Your task to perform on an android device: turn pop-ups on in chrome Image 0: 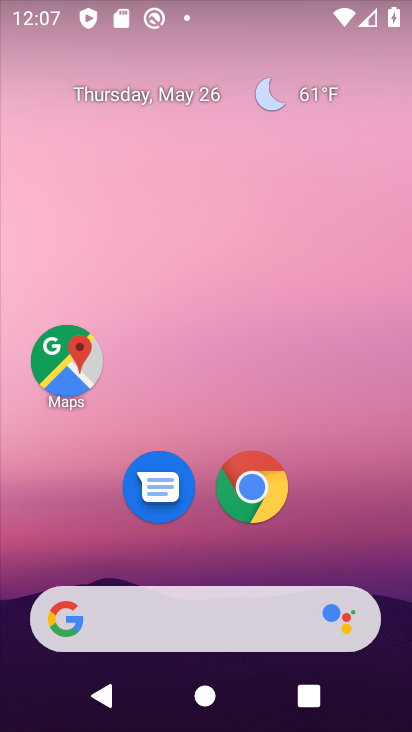
Step 0: drag from (263, 699) to (304, 32)
Your task to perform on an android device: turn pop-ups on in chrome Image 1: 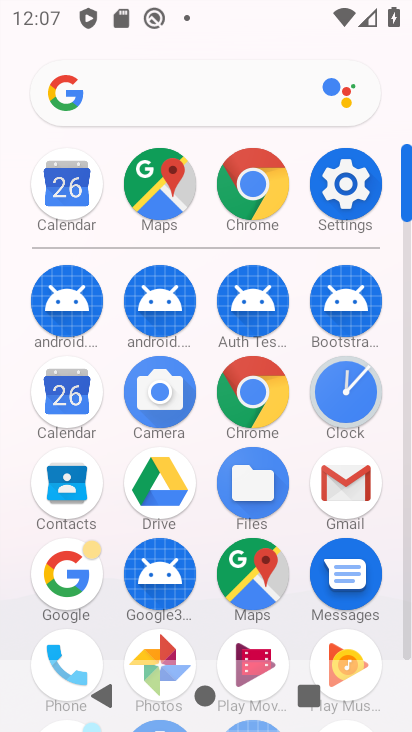
Step 1: click (261, 204)
Your task to perform on an android device: turn pop-ups on in chrome Image 2: 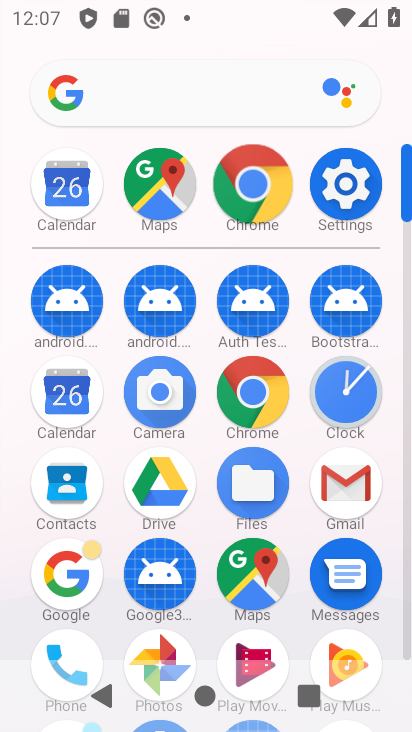
Step 2: click (258, 189)
Your task to perform on an android device: turn pop-ups on in chrome Image 3: 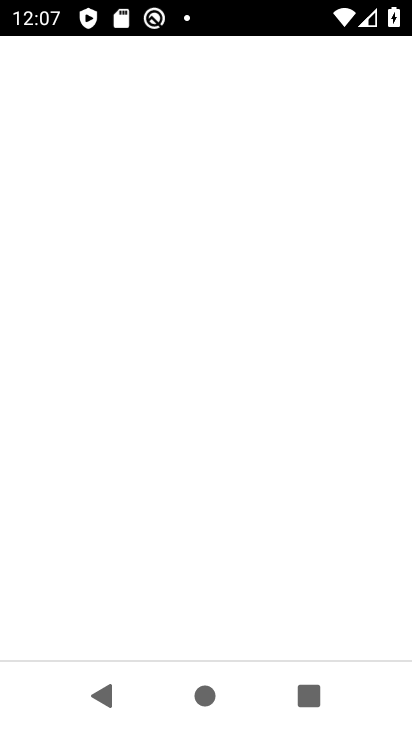
Step 3: click (258, 189)
Your task to perform on an android device: turn pop-ups on in chrome Image 4: 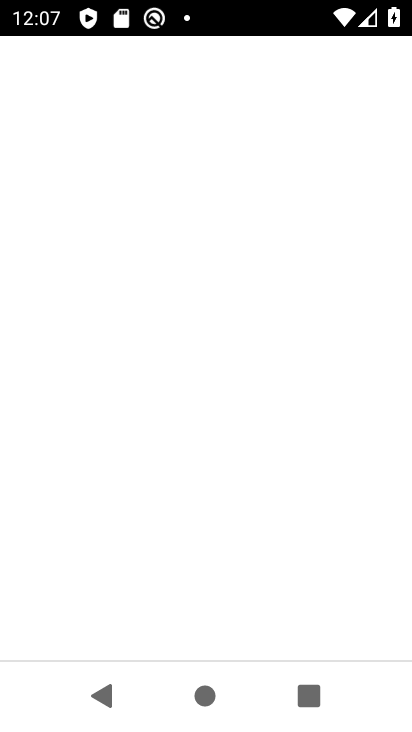
Step 4: click (258, 189)
Your task to perform on an android device: turn pop-ups on in chrome Image 5: 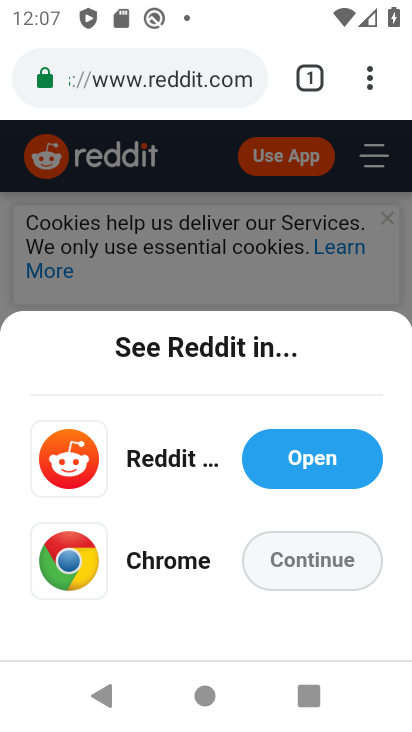
Step 5: press back button
Your task to perform on an android device: turn pop-ups on in chrome Image 6: 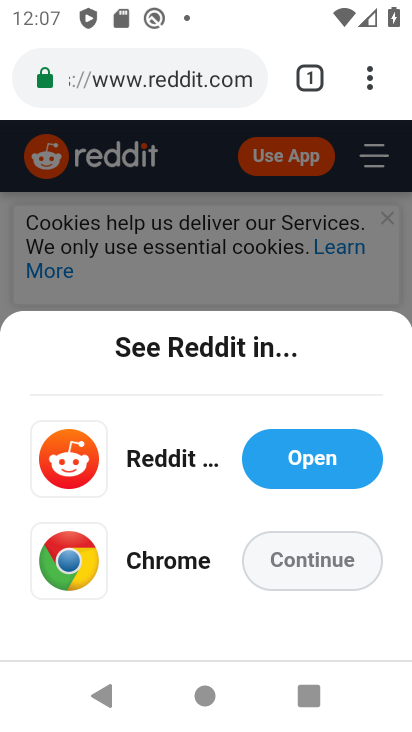
Step 6: press back button
Your task to perform on an android device: turn pop-ups on in chrome Image 7: 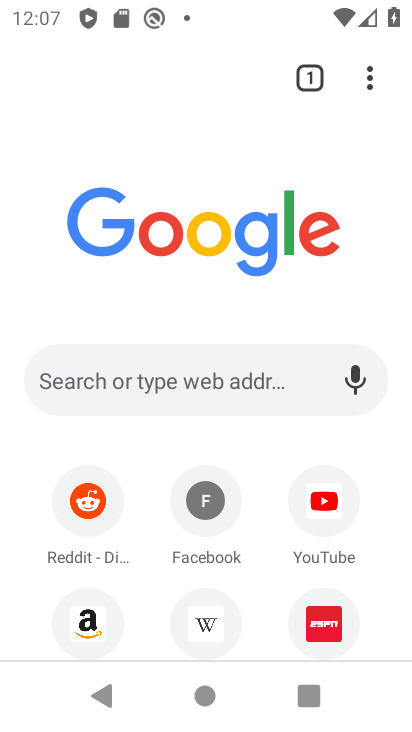
Step 7: press back button
Your task to perform on an android device: turn pop-ups on in chrome Image 8: 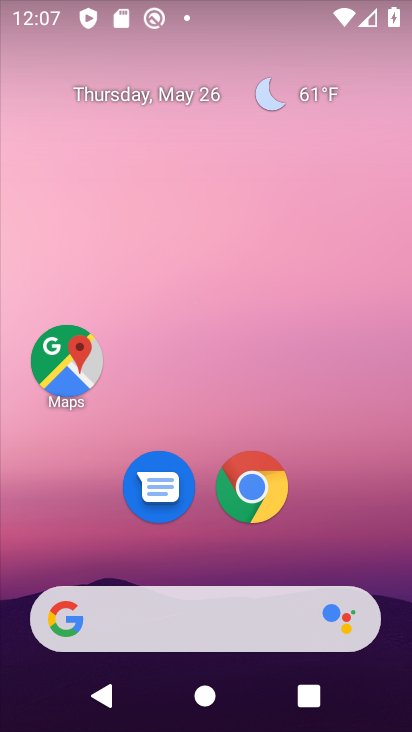
Step 8: press back button
Your task to perform on an android device: turn pop-ups on in chrome Image 9: 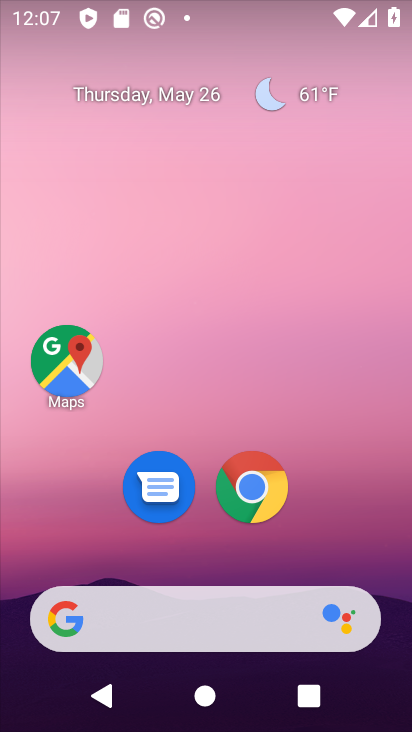
Step 9: drag from (294, 560) to (303, 37)
Your task to perform on an android device: turn pop-ups on in chrome Image 10: 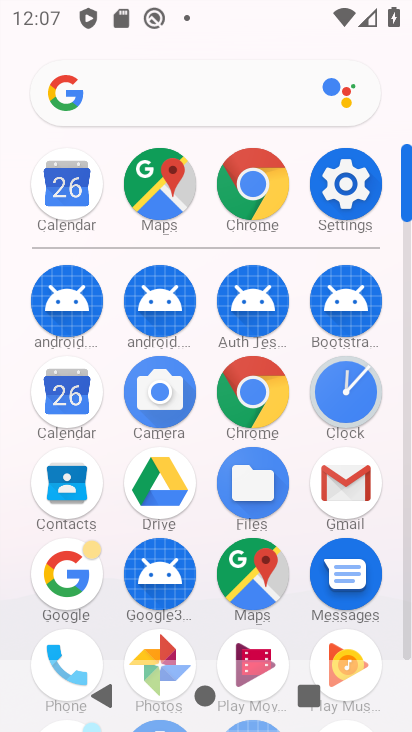
Step 10: drag from (229, 181) to (260, 200)
Your task to perform on an android device: turn pop-ups on in chrome Image 11: 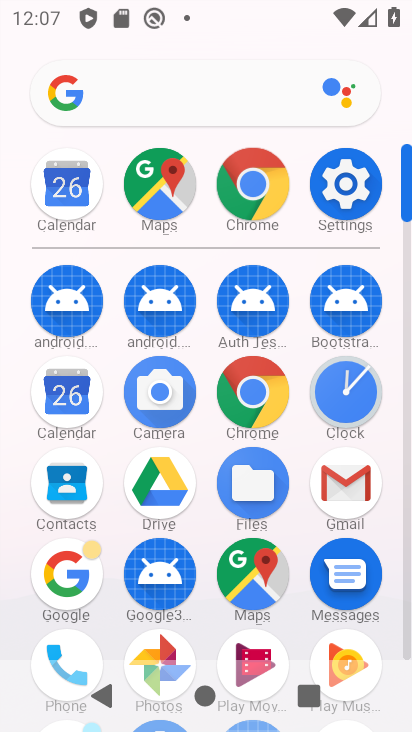
Step 11: click (255, 183)
Your task to perform on an android device: turn pop-ups on in chrome Image 12: 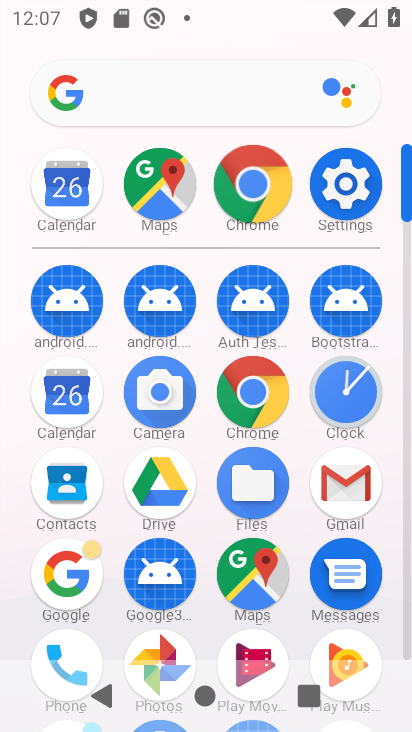
Step 12: click (261, 192)
Your task to perform on an android device: turn pop-ups on in chrome Image 13: 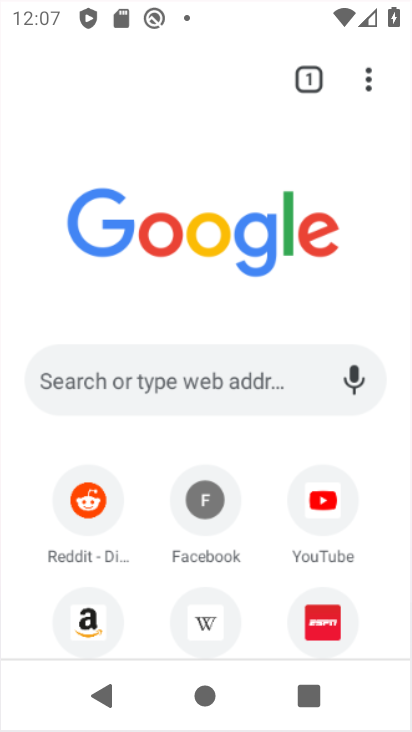
Step 13: click (262, 191)
Your task to perform on an android device: turn pop-ups on in chrome Image 14: 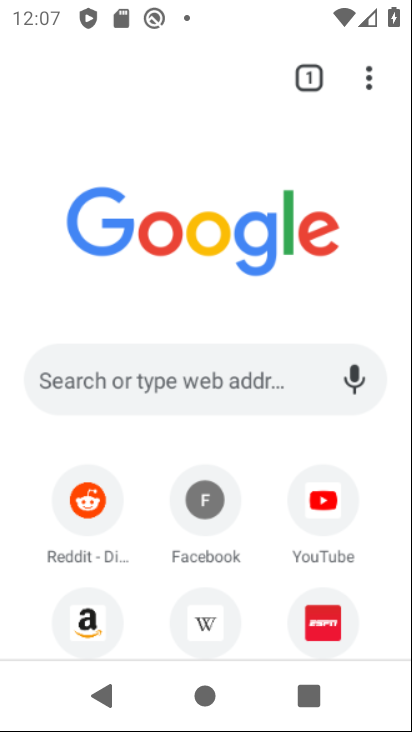
Step 14: click (261, 190)
Your task to perform on an android device: turn pop-ups on in chrome Image 15: 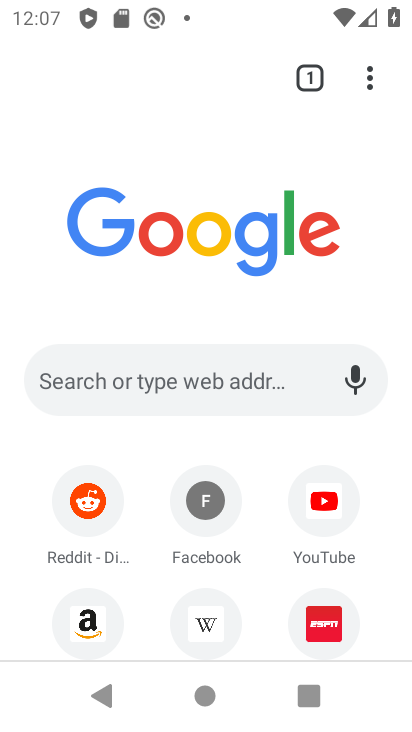
Step 15: drag from (375, 82) to (81, 553)
Your task to perform on an android device: turn pop-ups on in chrome Image 16: 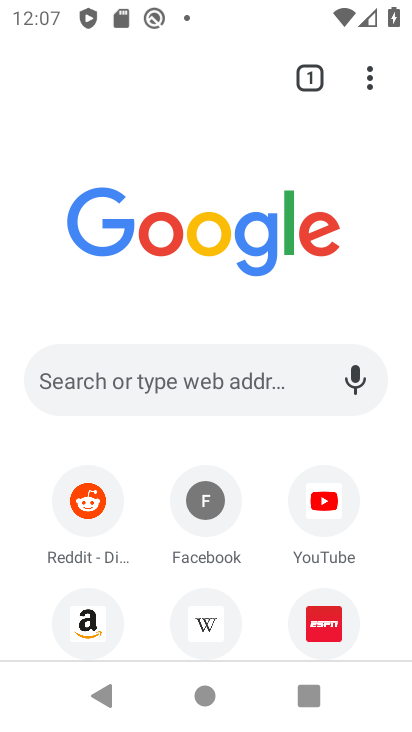
Step 16: click (94, 553)
Your task to perform on an android device: turn pop-ups on in chrome Image 17: 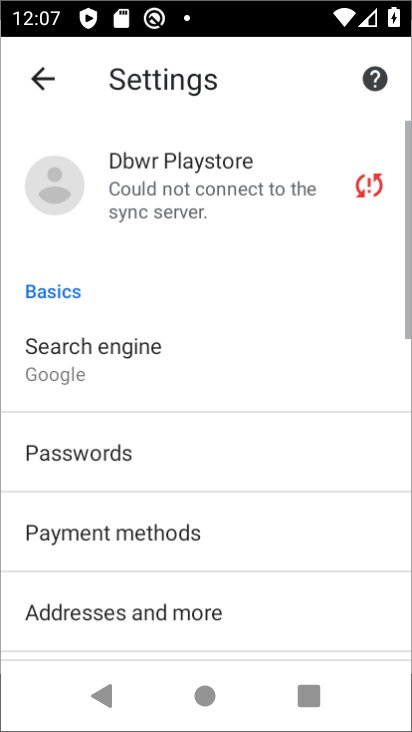
Step 17: click (97, 551)
Your task to perform on an android device: turn pop-ups on in chrome Image 18: 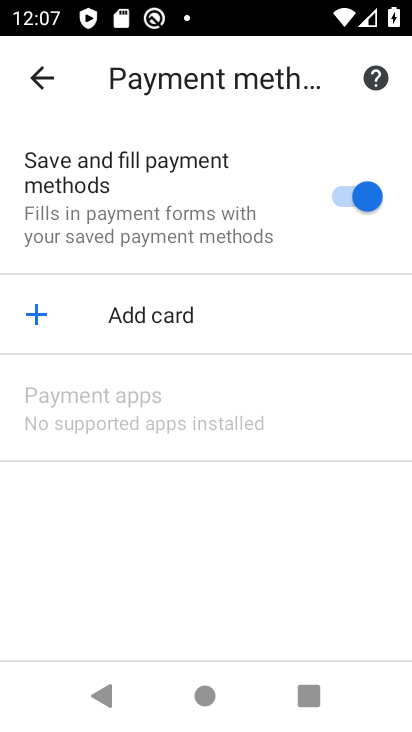
Step 18: click (40, 63)
Your task to perform on an android device: turn pop-ups on in chrome Image 19: 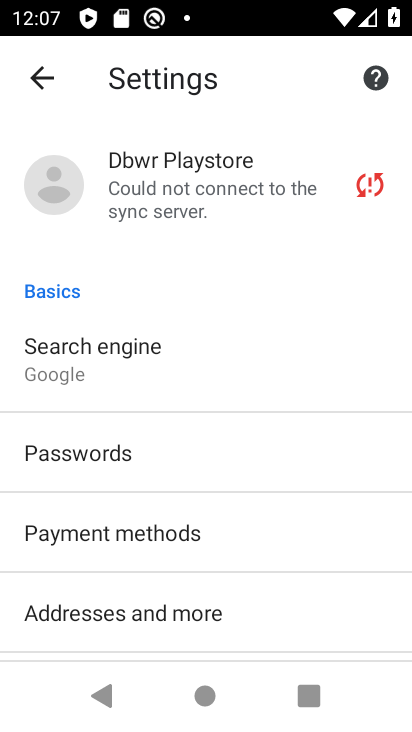
Step 19: drag from (126, 503) to (87, 247)
Your task to perform on an android device: turn pop-ups on in chrome Image 20: 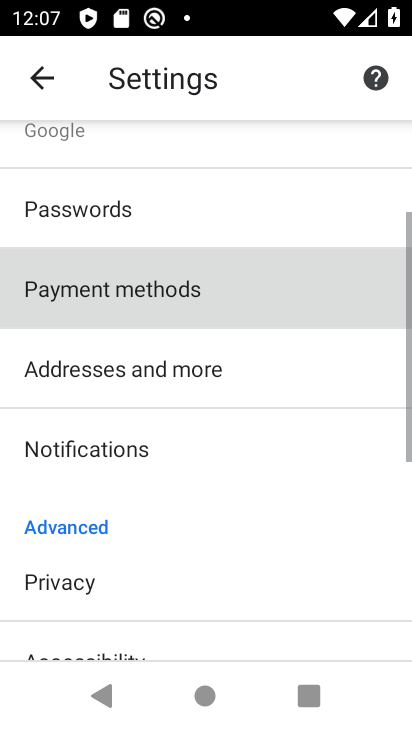
Step 20: drag from (162, 438) to (119, 231)
Your task to perform on an android device: turn pop-ups on in chrome Image 21: 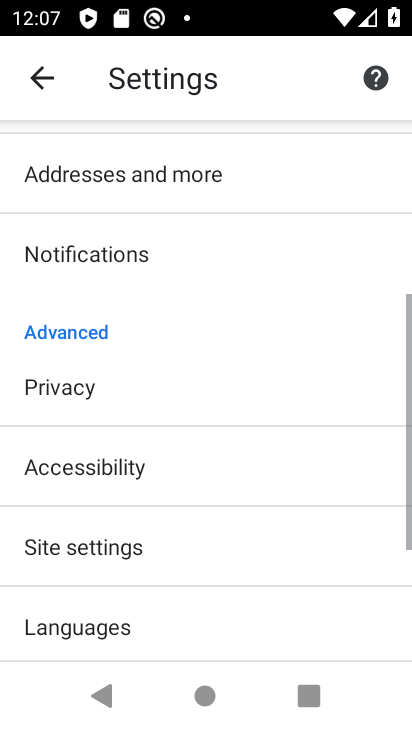
Step 21: drag from (143, 380) to (143, 113)
Your task to perform on an android device: turn pop-ups on in chrome Image 22: 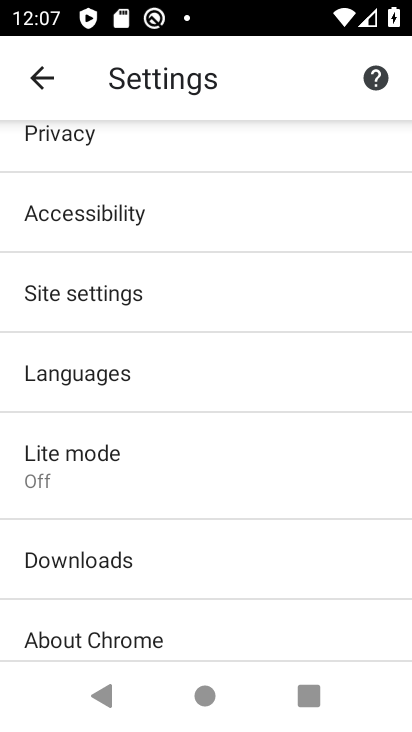
Step 22: click (82, 283)
Your task to perform on an android device: turn pop-ups on in chrome Image 23: 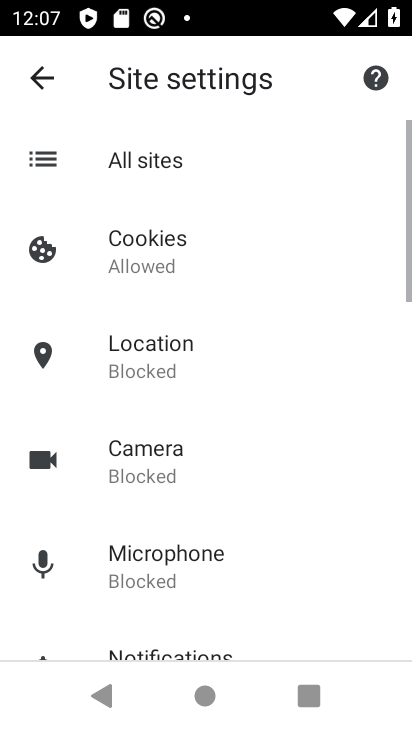
Step 23: drag from (148, 466) to (139, 178)
Your task to perform on an android device: turn pop-ups on in chrome Image 24: 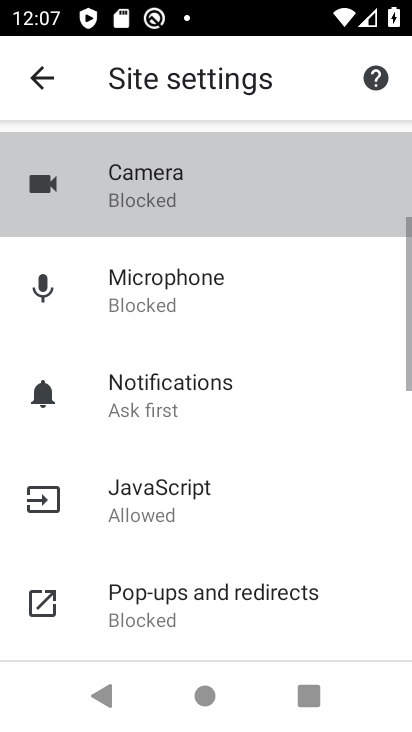
Step 24: drag from (233, 489) to (219, 217)
Your task to perform on an android device: turn pop-ups on in chrome Image 25: 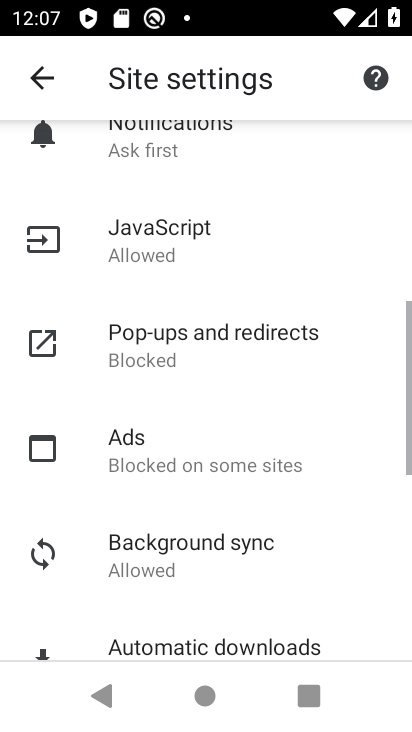
Step 25: drag from (196, 493) to (244, 244)
Your task to perform on an android device: turn pop-ups on in chrome Image 26: 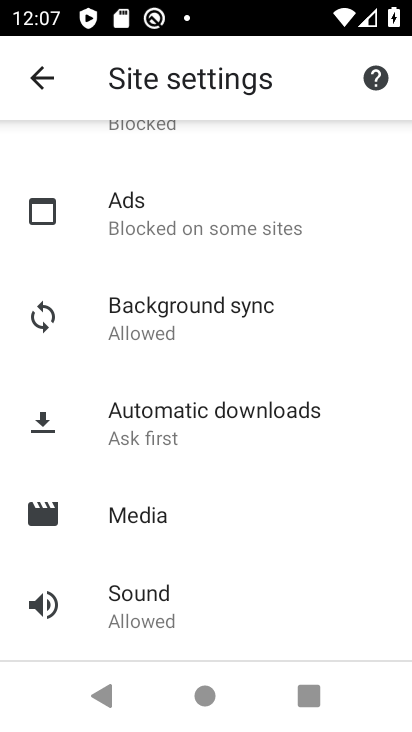
Step 26: drag from (214, 253) to (250, 445)
Your task to perform on an android device: turn pop-ups on in chrome Image 27: 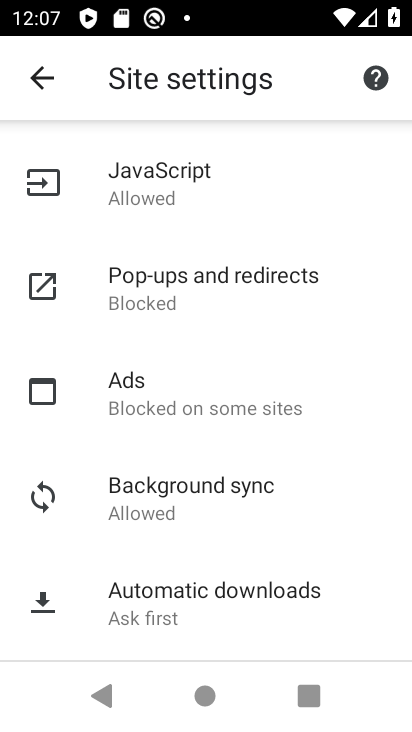
Step 27: click (142, 277)
Your task to perform on an android device: turn pop-ups on in chrome Image 28: 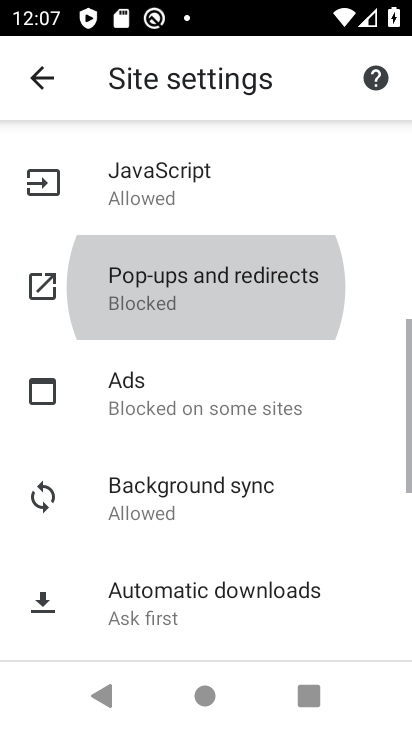
Step 28: click (151, 268)
Your task to perform on an android device: turn pop-ups on in chrome Image 29: 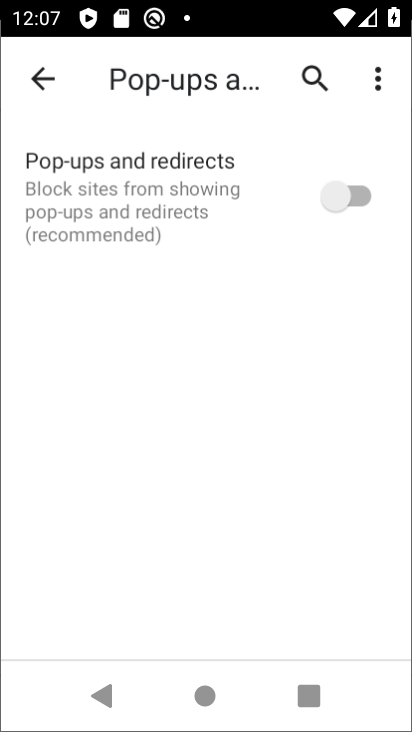
Step 29: click (152, 269)
Your task to perform on an android device: turn pop-ups on in chrome Image 30: 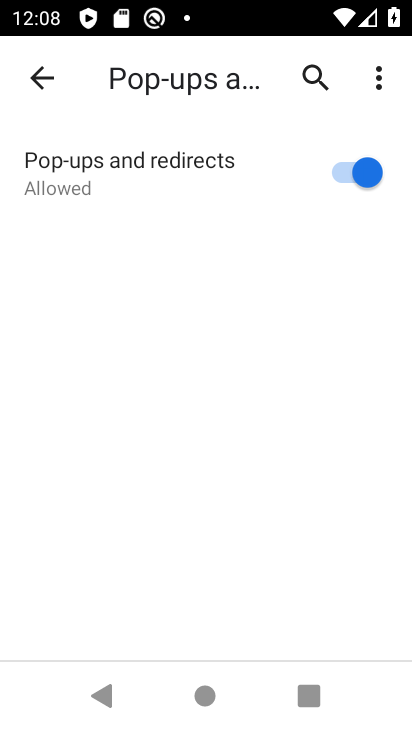
Step 30: task complete